Your task to perform on an android device: Open the map Image 0: 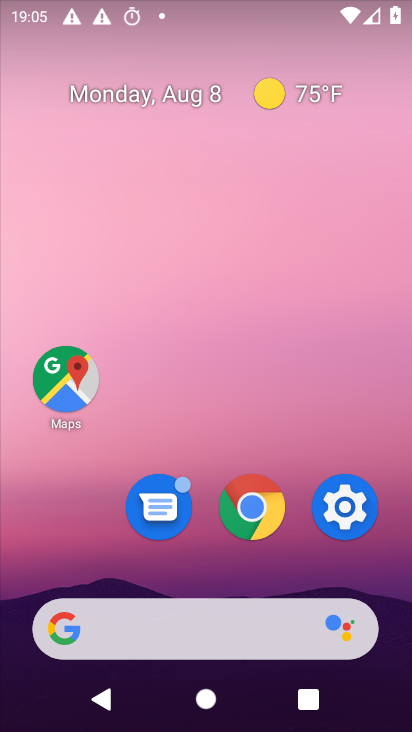
Step 0: drag from (264, 289) to (245, 224)
Your task to perform on an android device: Open the map Image 1: 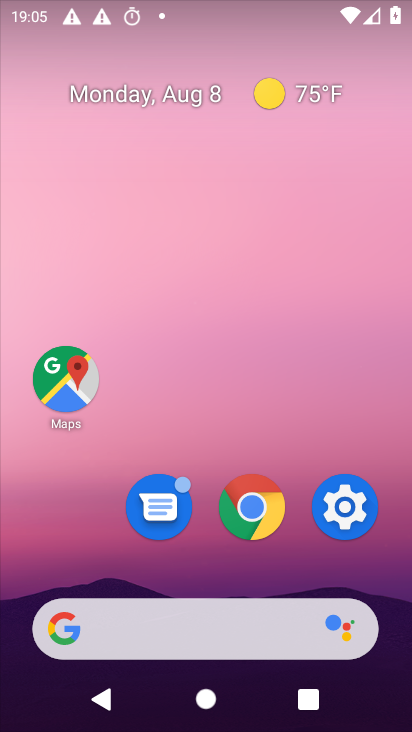
Step 1: drag from (236, 644) to (254, 191)
Your task to perform on an android device: Open the map Image 2: 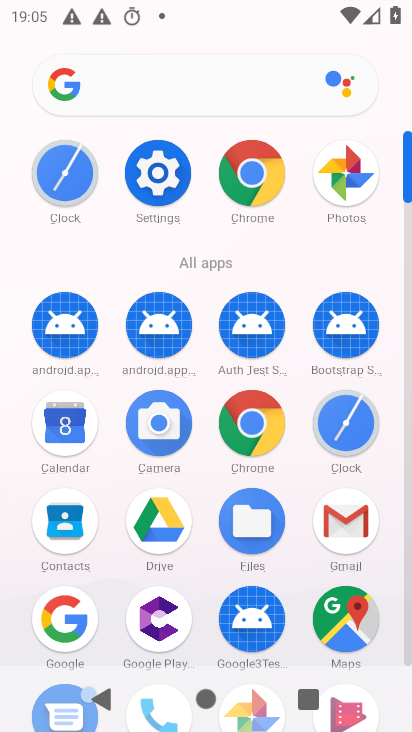
Step 2: click (325, 624)
Your task to perform on an android device: Open the map Image 3: 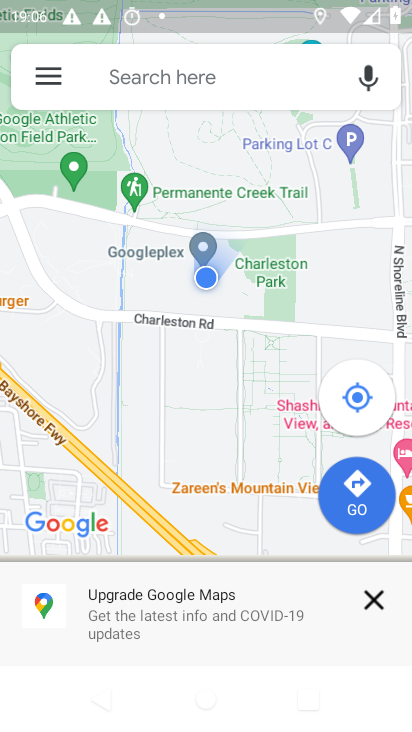
Step 3: click (371, 401)
Your task to perform on an android device: Open the map Image 4: 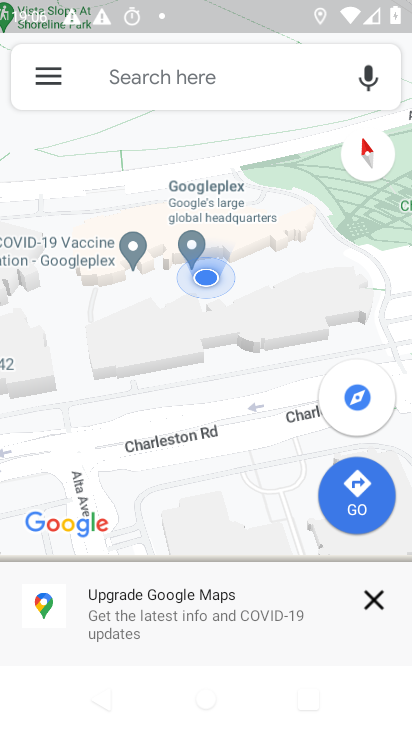
Step 4: click (384, 599)
Your task to perform on an android device: Open the map Image 5: 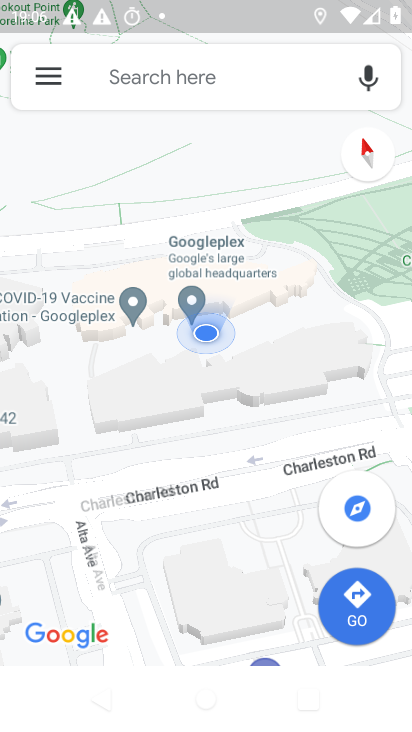
Step 5: task complete